Your task to perform on an android device: open app "Speedtest by Ookla" Image 0: 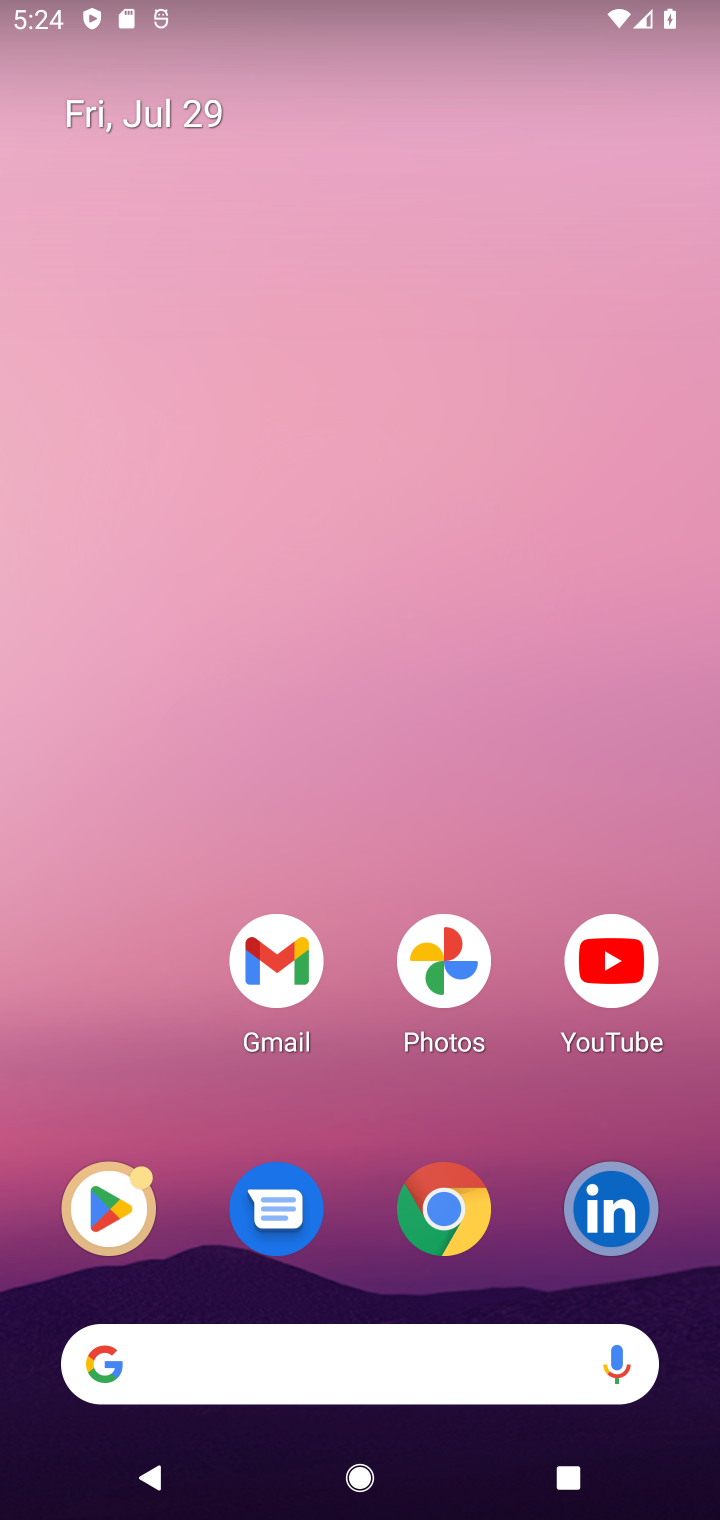
Step 0: press home button
Your task to perform on an android device: open app "Speedtest by Ookla" Image 1: 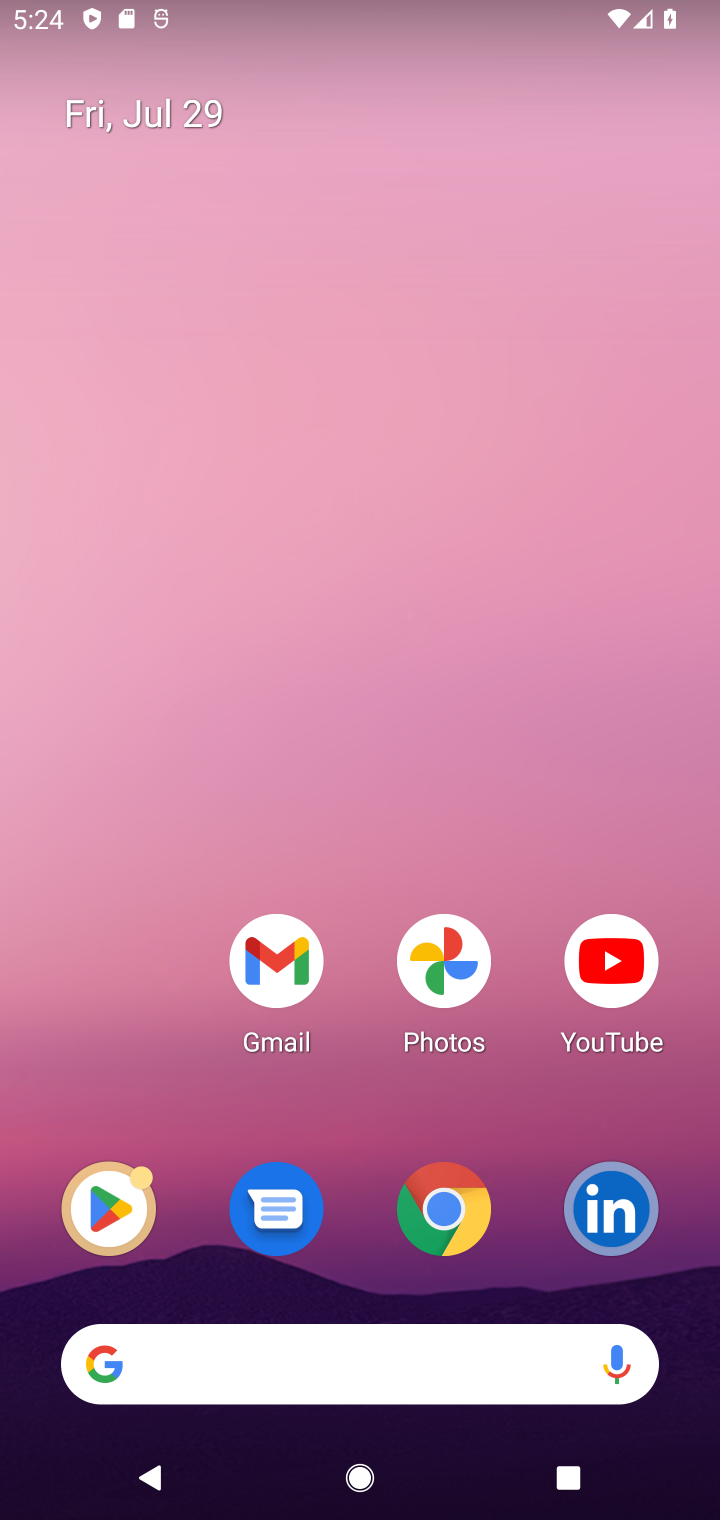
Step 1: click (104, 1232)
Your task to perform on an android device: open app "Speedtest by Ookla" Image 2: 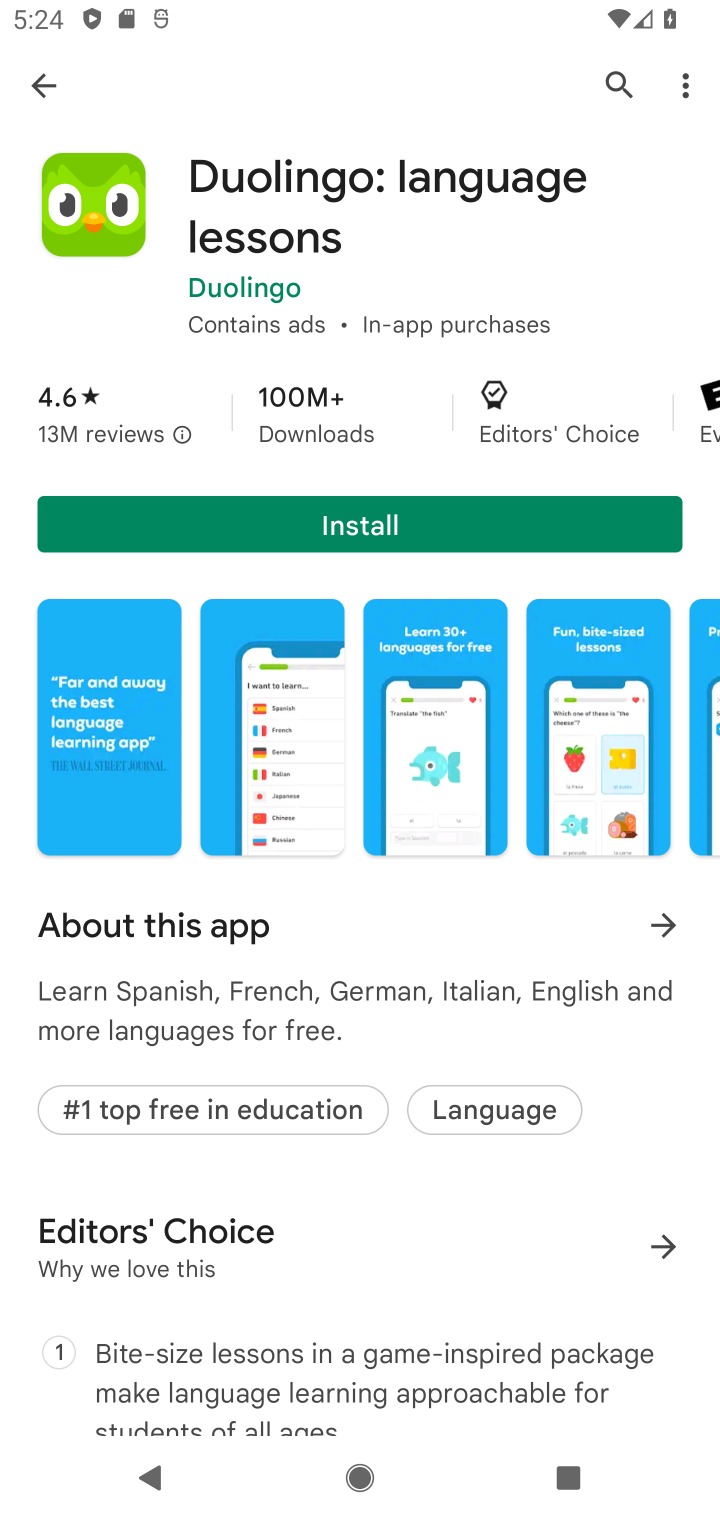
Step 2: click (615, 86)
Your task to perform on an android device: open app "Speedtest by Ookla" Image 3: 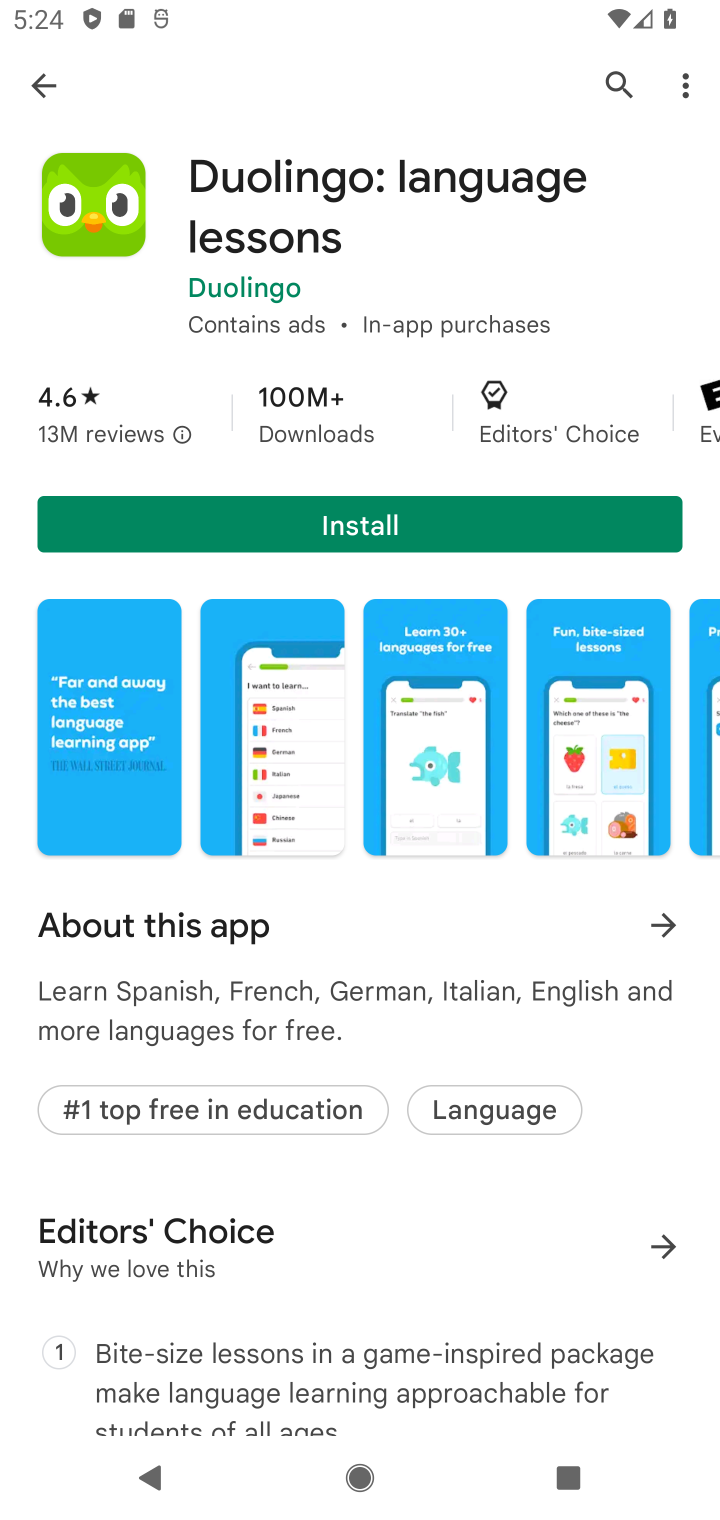
Step 3: click (621, 74)
Your task to perform on an android device: open app "Speedtest by Ookla" Image 4: 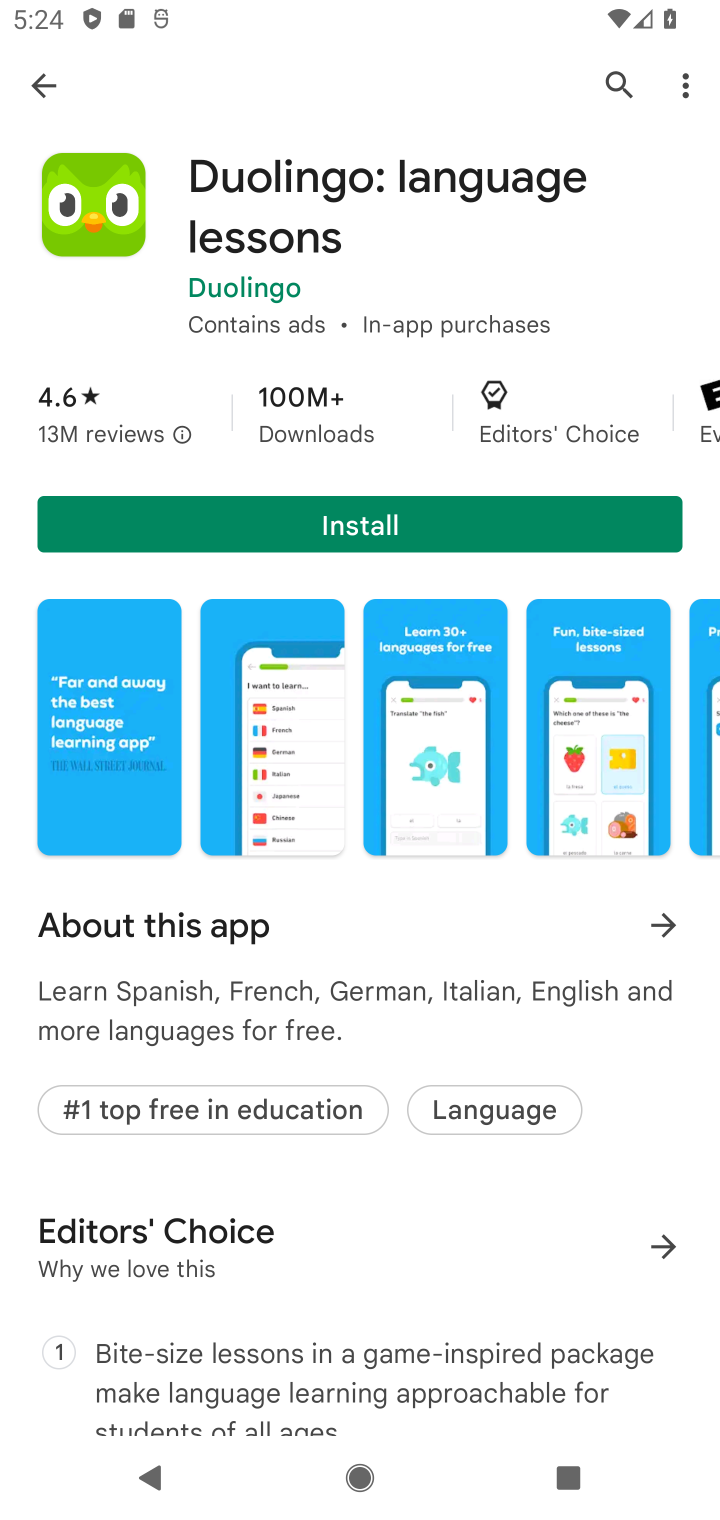
Step 4: click (611, 91)
Your task to perform on an android device: open app "Speedtest by Ookla" Image 5: 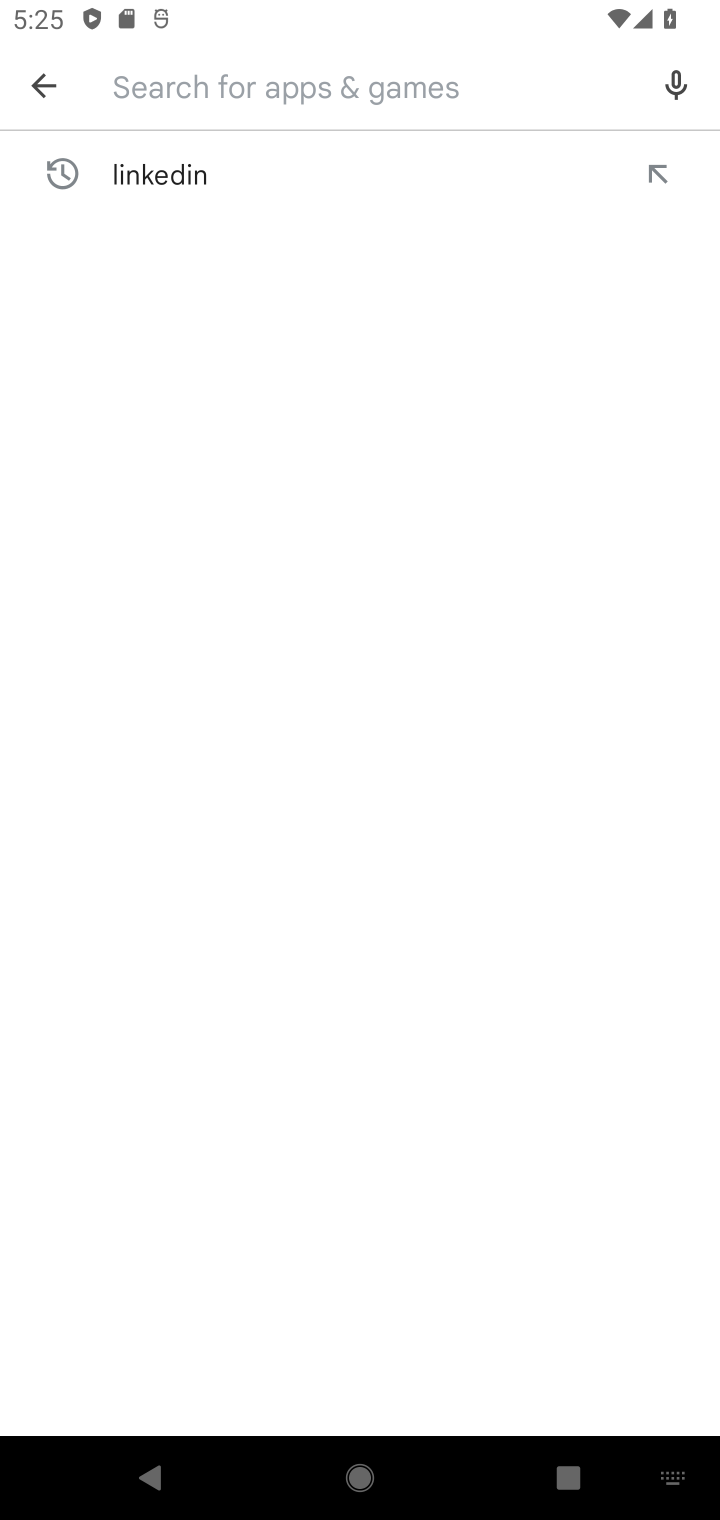
Step 5: click (194, 93)
Your task to perform on an android device: open app "Speedtest by Ookla" Image 6: 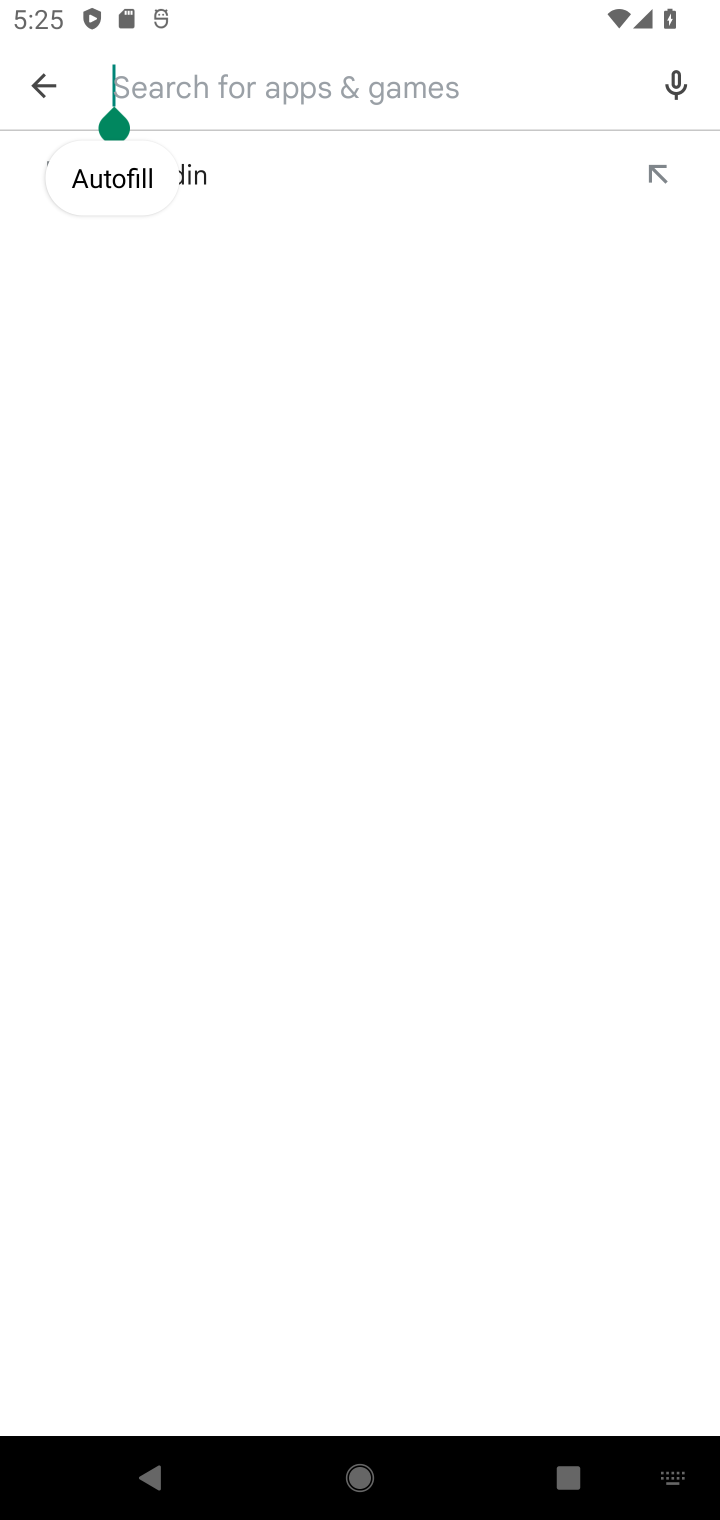
Step 6: type "Speedtest by Ookla"
Your task to perform on an android device: open app "Speedtest by Ookla" Image 7: 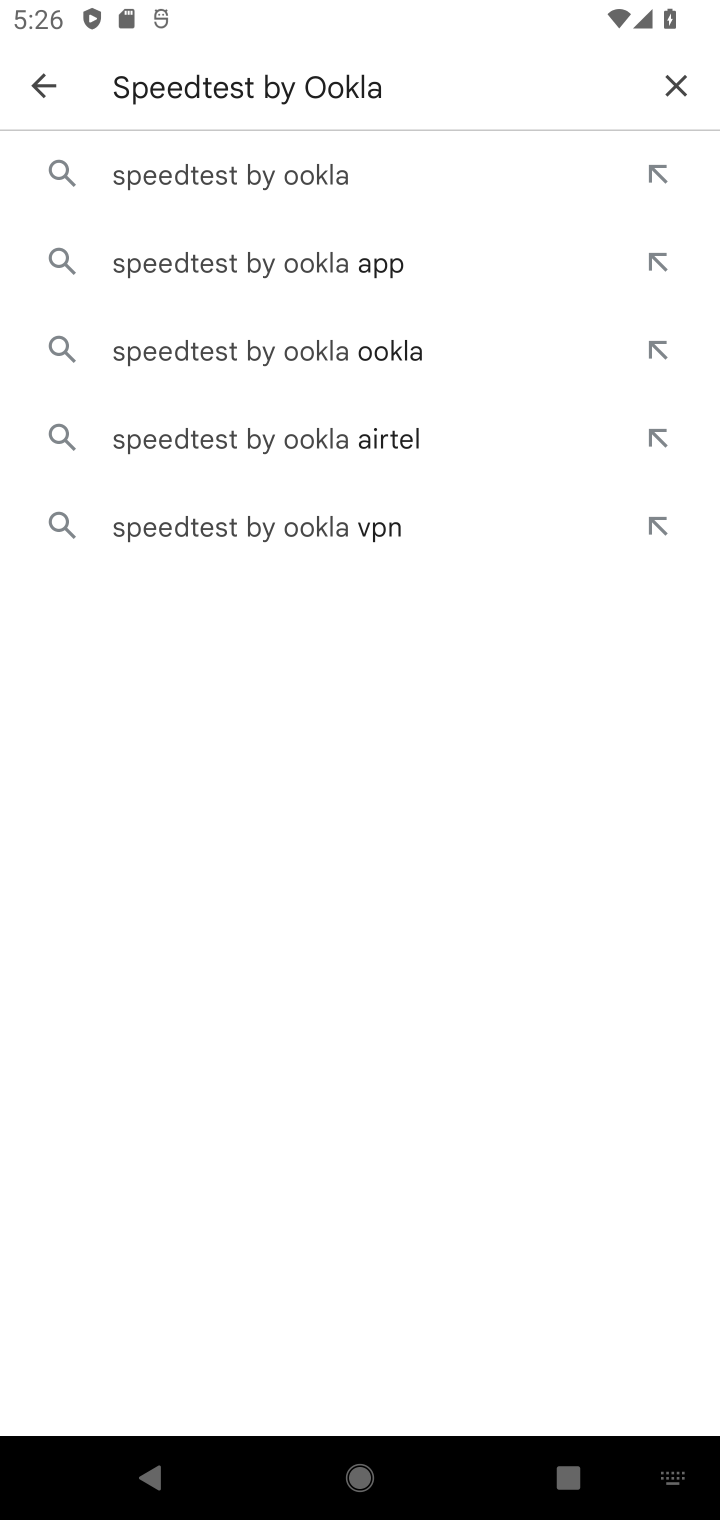
Step 7: click (265, 189)
Your task to perform on an android device: open app "Speedtest by Ookla" Image 8: 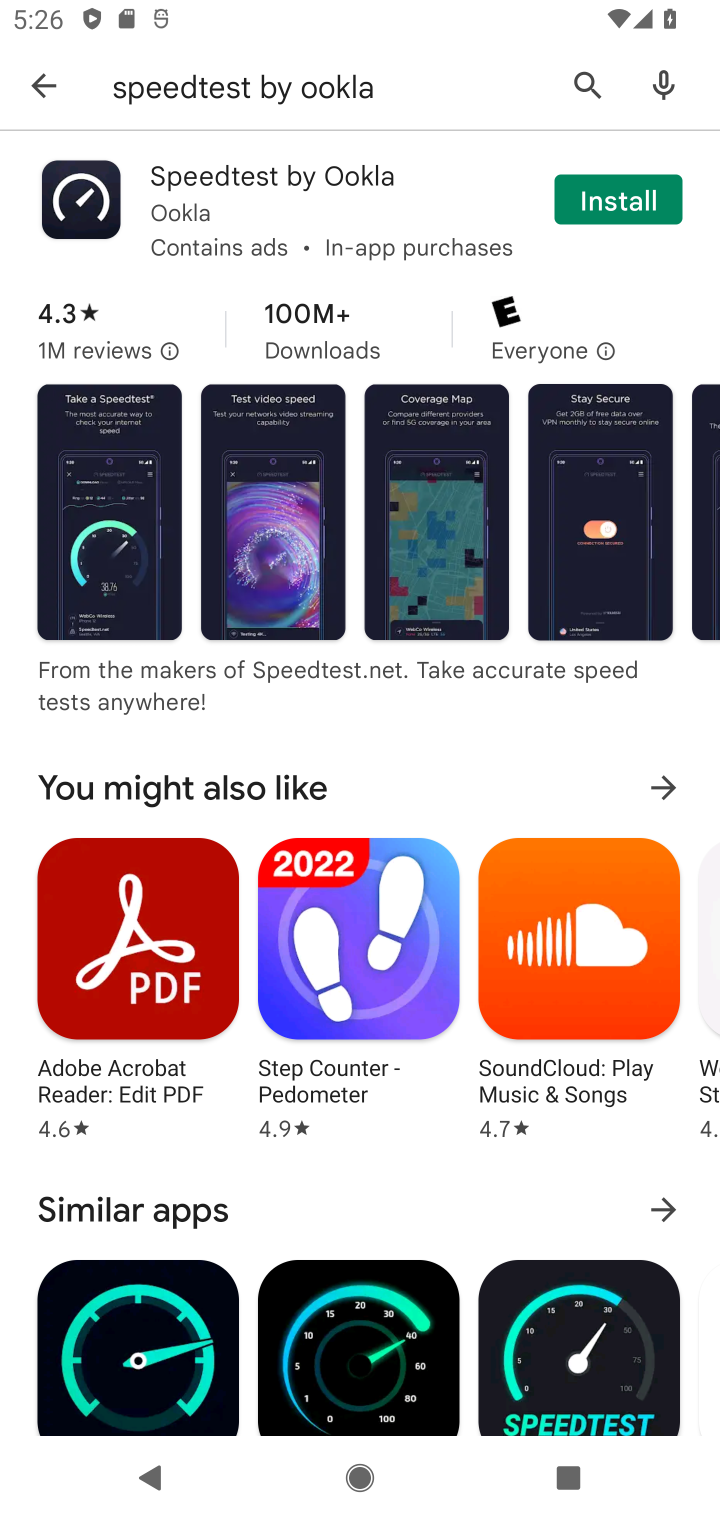
Step 8: task complete